Your task to perform on an android device: see tabs open on other devices in the chrome app Image 0: 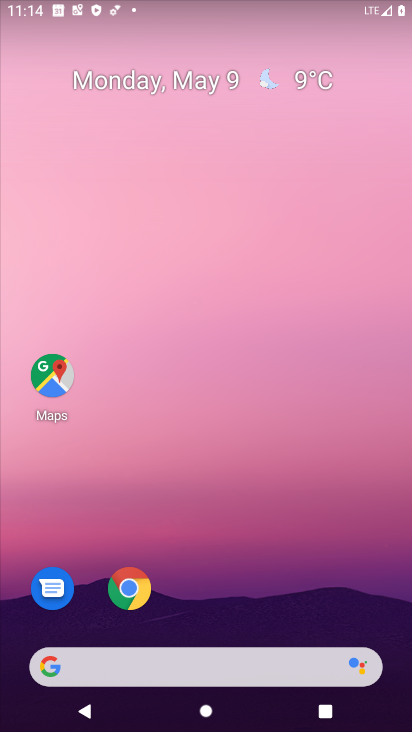
Step 0: press home button
Your task to perform on an android device: see tabs open on other devices in the chrome app Image 1: 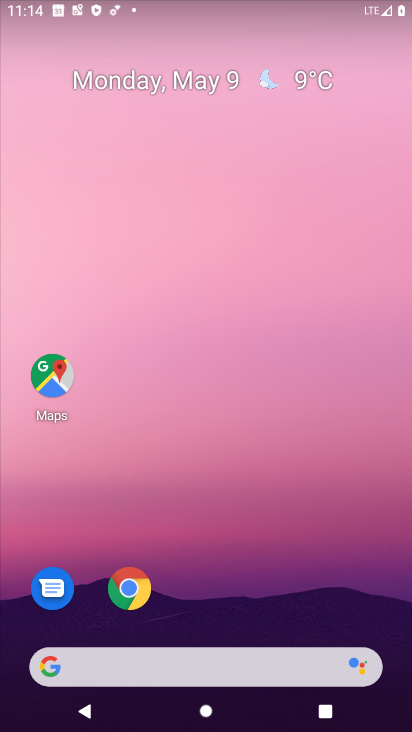
Step 1: click (133, 597)
Your task to perform on an android device: see tabs open on other devices in the chrome app Image 2: 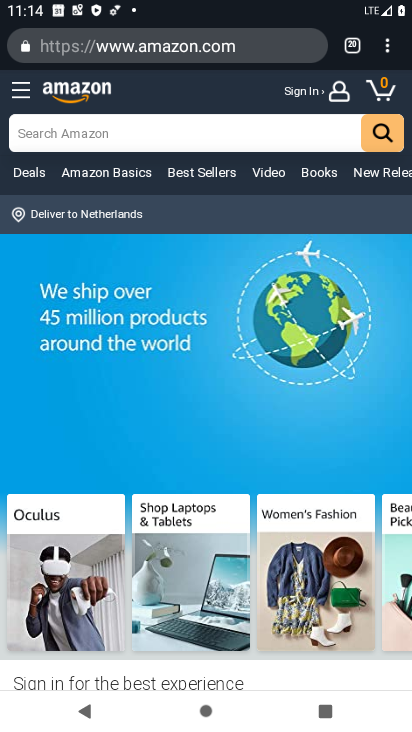
Step 2: task complete